Your task to perform on an android device: open chrome privacy settings Image 0: 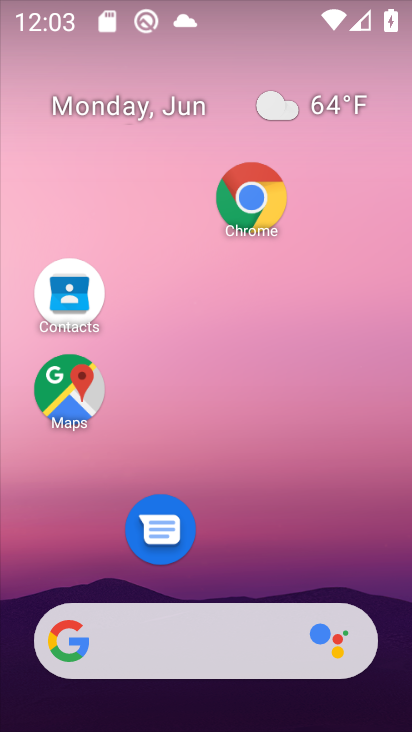
Step 0: click (249, 191)
Your task to perform on an android device: open chrome privacy settings Image 1: 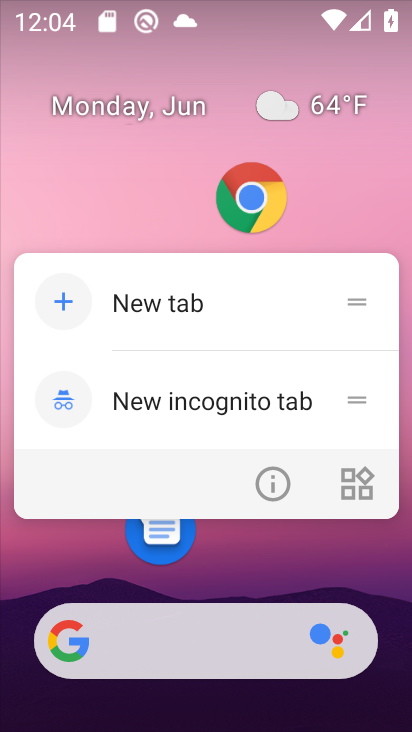
Step 1: click (252, 185)
Your task to perform on an android device: open chrome privacy settings Image 2: 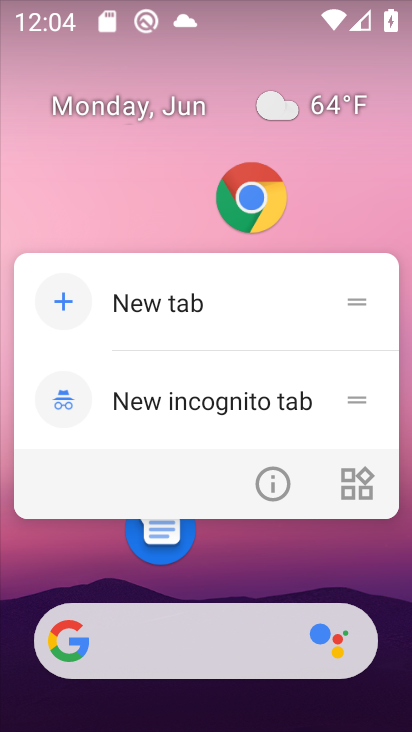
Step 2: click (274, 193)
Your task to perform on an android device: open chrome privacy settings Image 3: 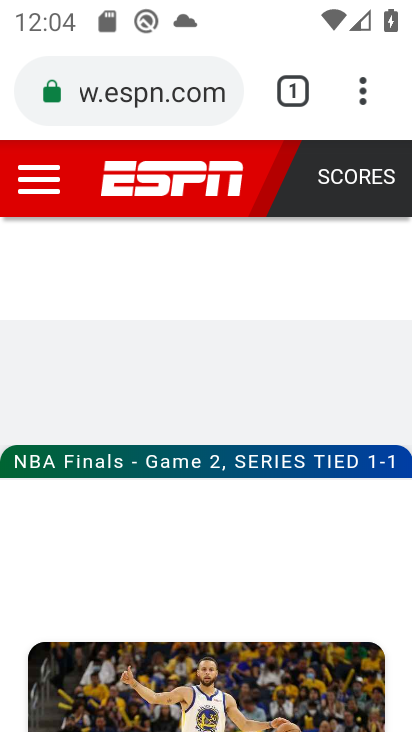
Step 3: click (359, 102)
Your task to perform on an android device: open chrome privacy settings Image 4: 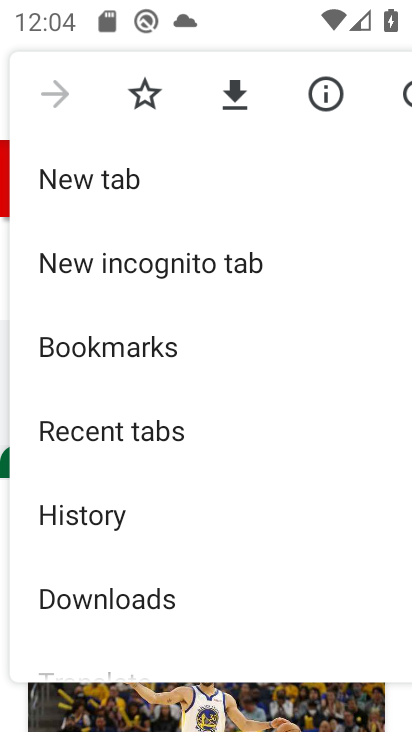
Step 4: drag from (155, 548) to (143, 212)
Your task to perform on an android device: open chrome privacy settings Image 5: 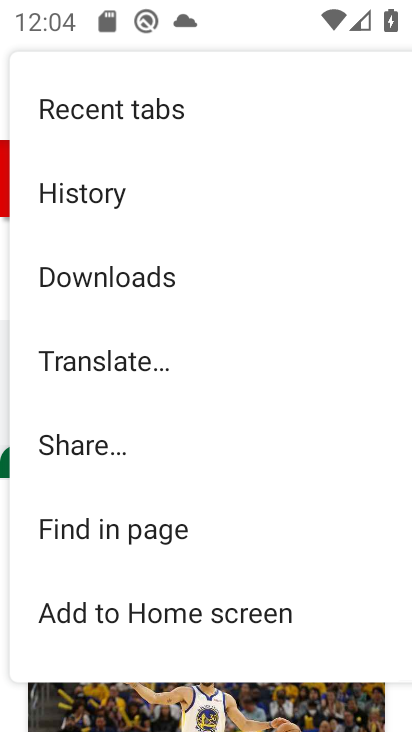
Step 5: drag from (164, 602) to (163, 177)
Your task to perform on an android device: open chrome privacy settings Image 6: 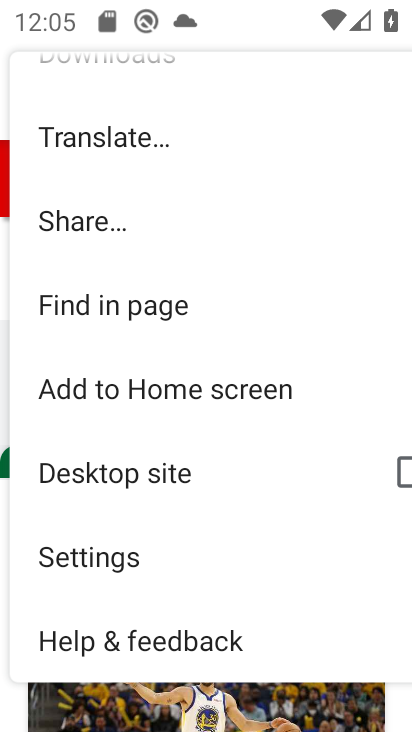
Step 6: click (146, 570)
Your task to perform on an android device: open chrome privacy settings Image 7: 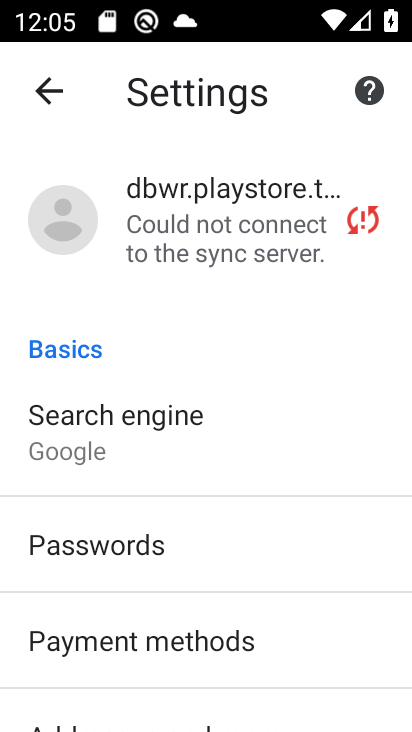
Step 7: drag from (289, 641) to (286, 117)
Your task to perform on an android device: open chrome privacy settings Image 8: 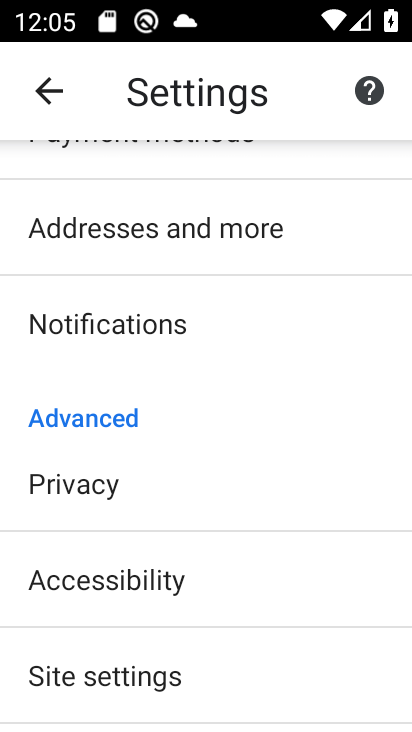
Step 8: click (105, 480)
Your task to perform on an android device: open chrome privacy settings Image 9: 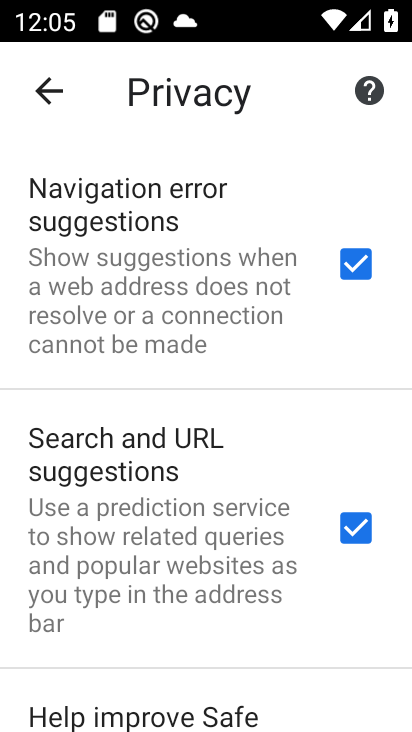
Step 9: task complete